Your task to perform on an android device: check out phone information Image 0: 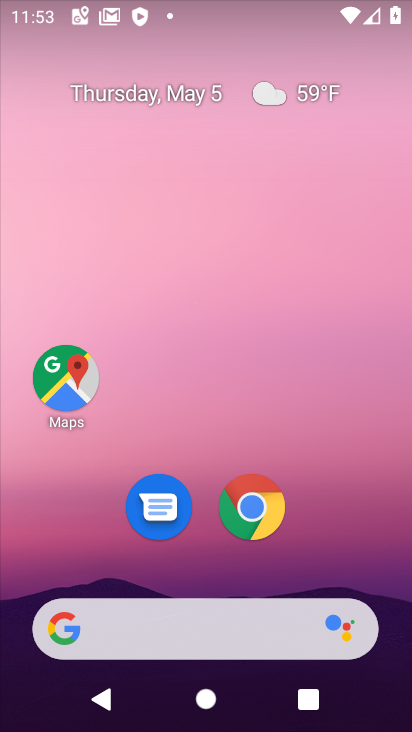
Step 0: click (343, 507)
Your task to perform on an android device: check out phone information Image 1: 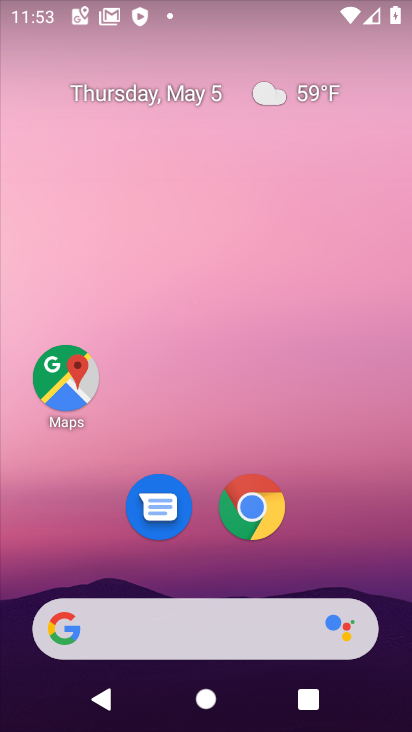
Step 1: drag from (343, 507) to (285, 45)
Your task to perform on an android device: check out phone information Image 2: 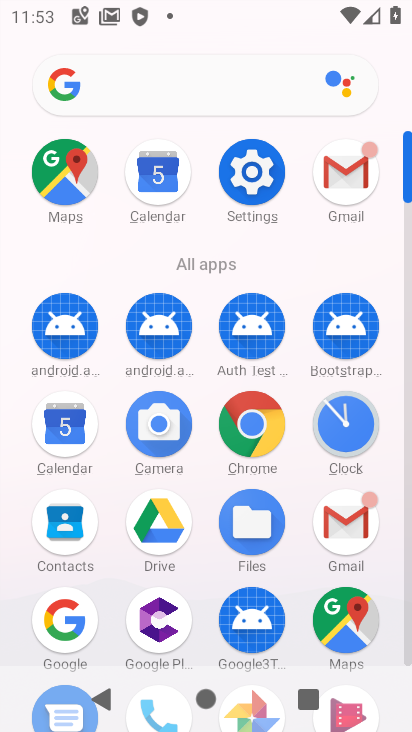
Step 2: click (242, 180)
Your task to perform on an android device: check out phone information Image 3: 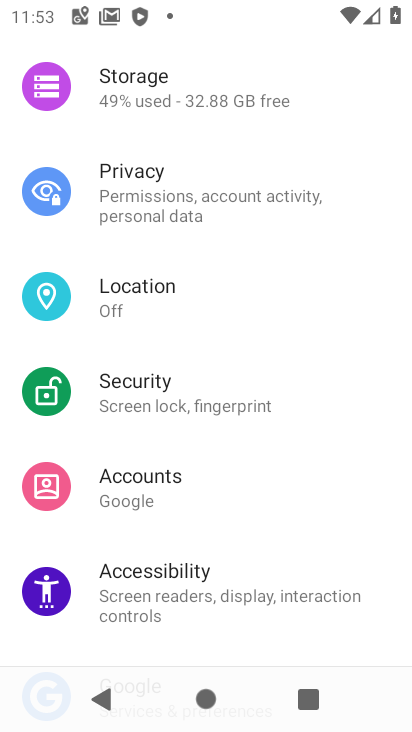
Step 3: drag from (249, 522) to (234, 4)
Your task to perform on an android device: check out phone information Image 4: 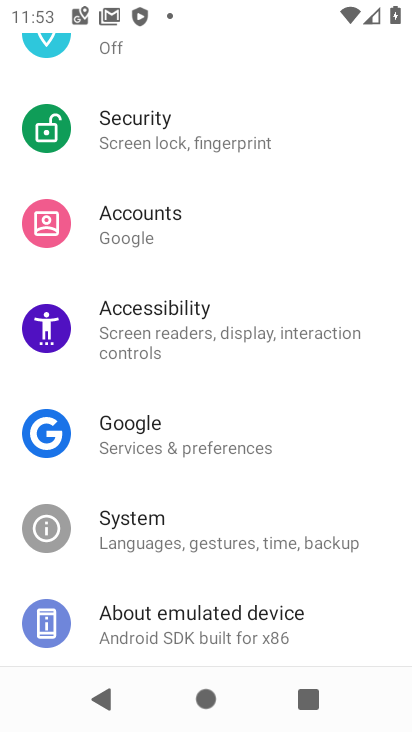
Step 4: drag from (224, 513) to (181, 54)
Your task to perform on an android device: check out phone information Image 5: 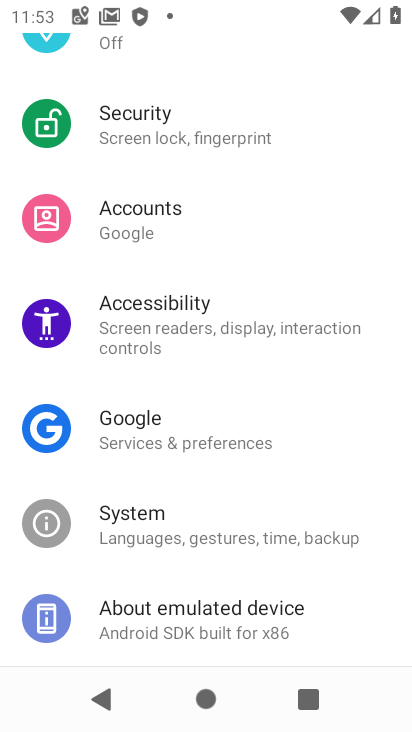
Step 5: drag from (200, 515) to (201, 107)
Your task to perform on an android device: check out phone information Image 6: 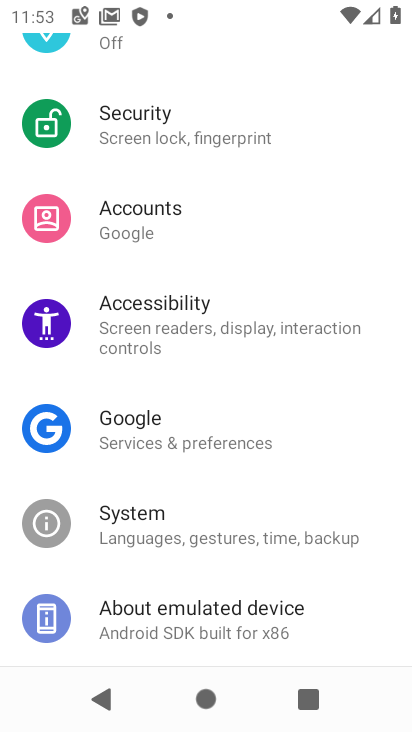
Step 6: drag from (264, 314) to (263, 96)
Your task to perform on an android device: check out phone information Image 7: 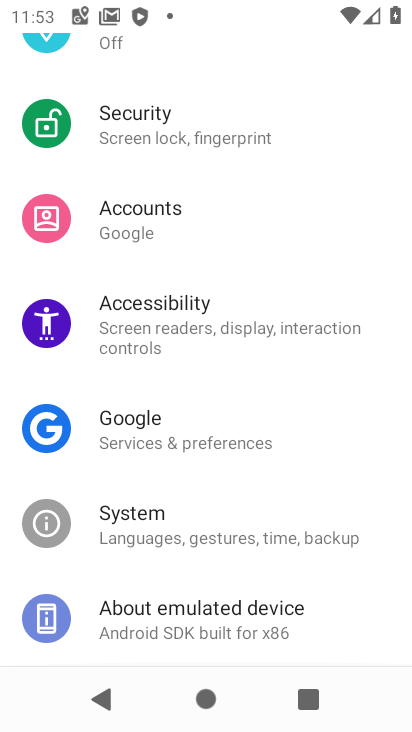
Step 7: click (184, 617)
Your task to perform on an android device: check out phone information Image 8: 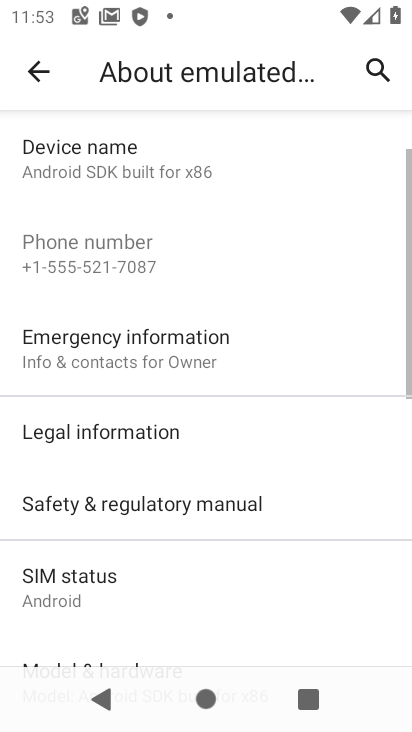
Step 8: task complete